Your task to perform on an android device: install app "Microsoft Authenticator" Image 0: 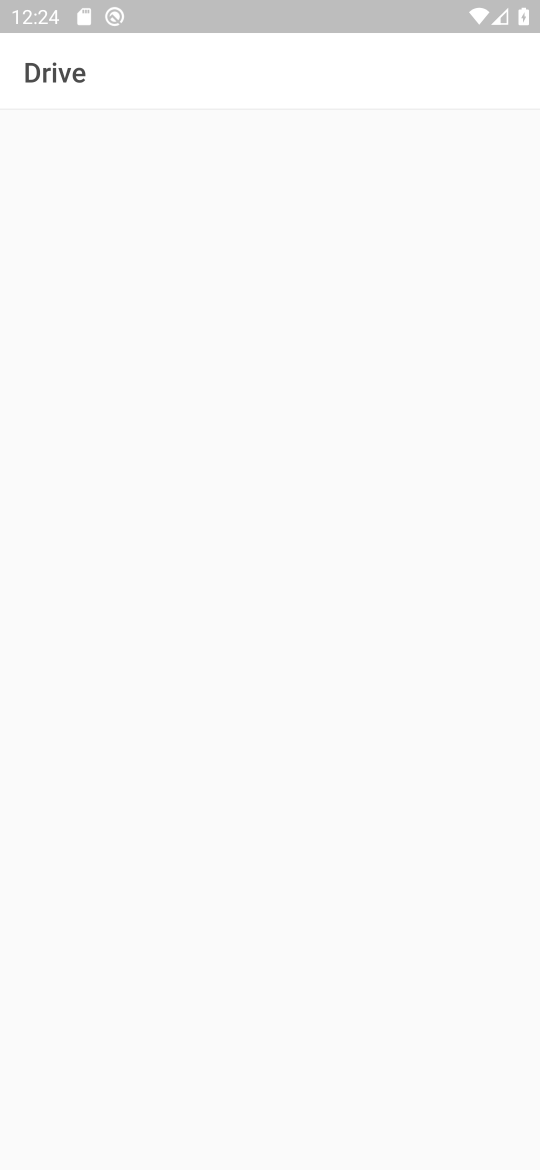
Step 0: press home button
Your task to perform on an android device: install app "Microsoft Authenticator" Image 1: 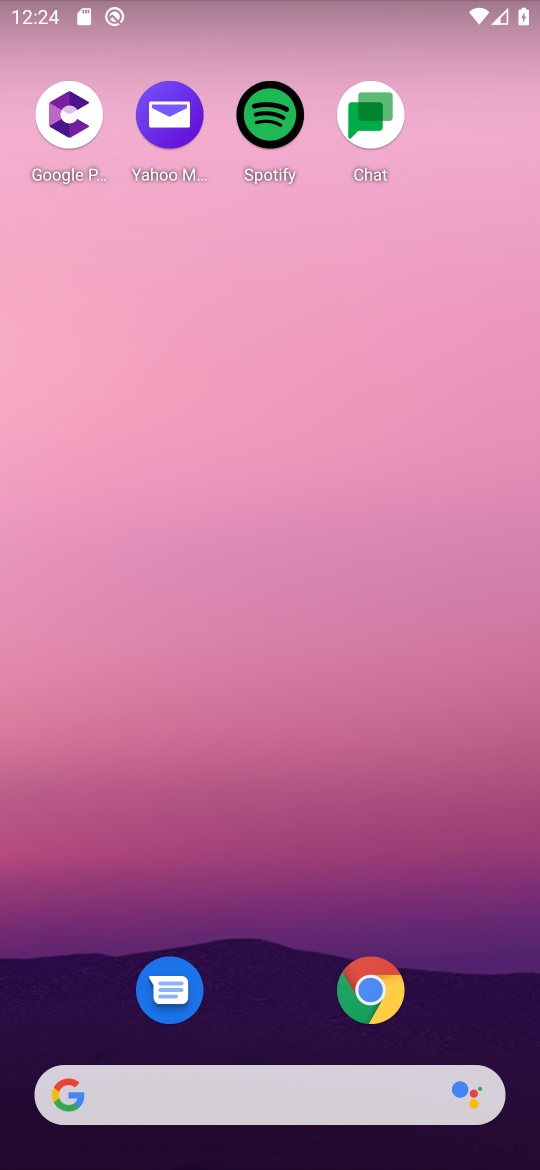
Step 1: drag from (242, 910) to (239, 291)
Your task to perform on an android device: install app "Microsoft Authenticator" Image 2: 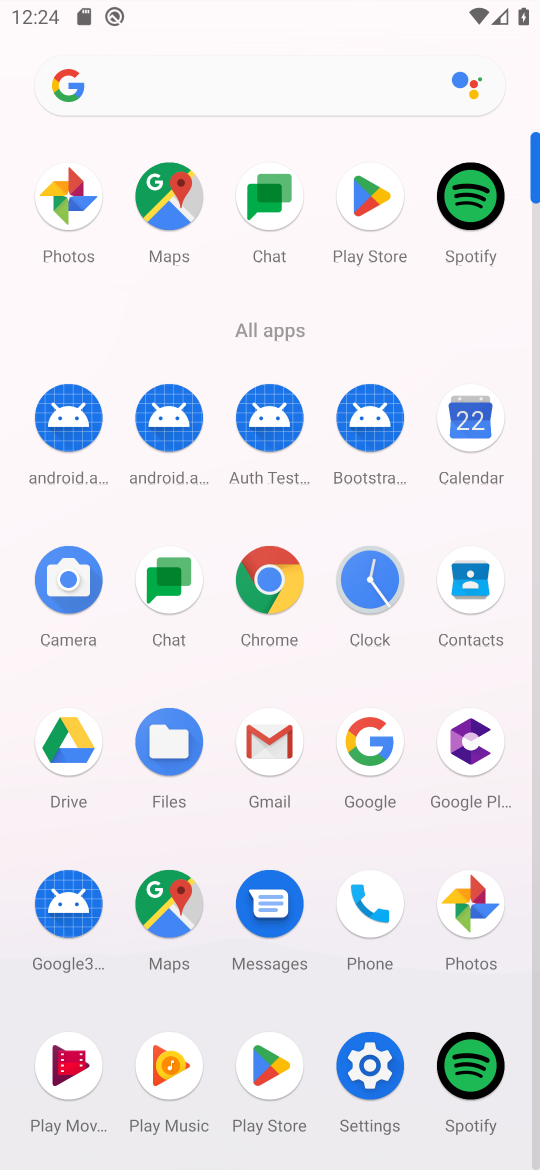
Step 2: click (386, 211)
Your task to perform on an android device: install app "Microsoft Authenticator" Image 3: 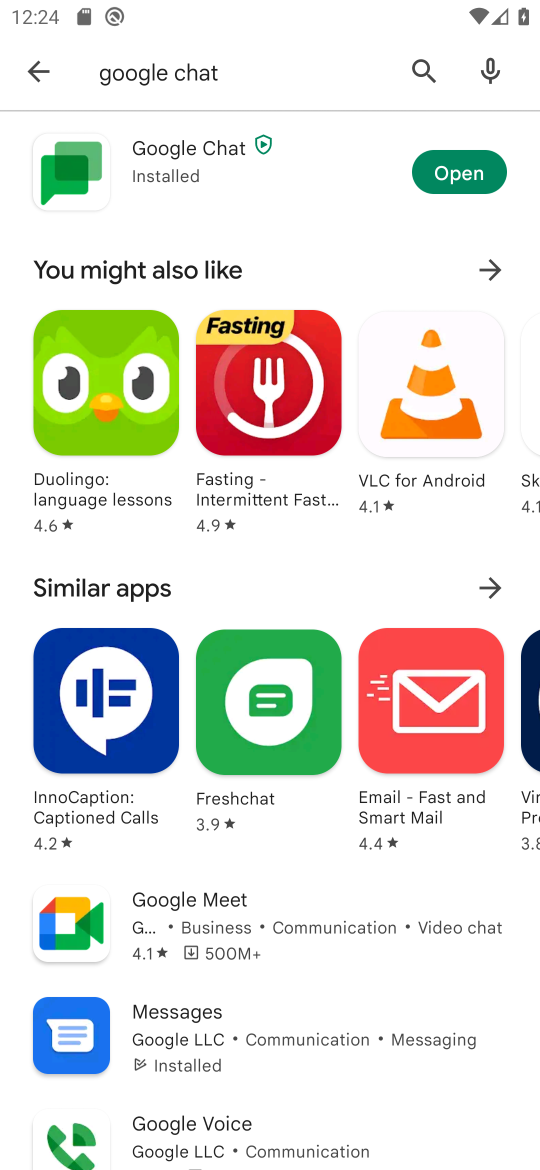
Step 3: click (424, 76)
Your task to perform on an android device: install app "Microsoft Authenticator" Image 4: 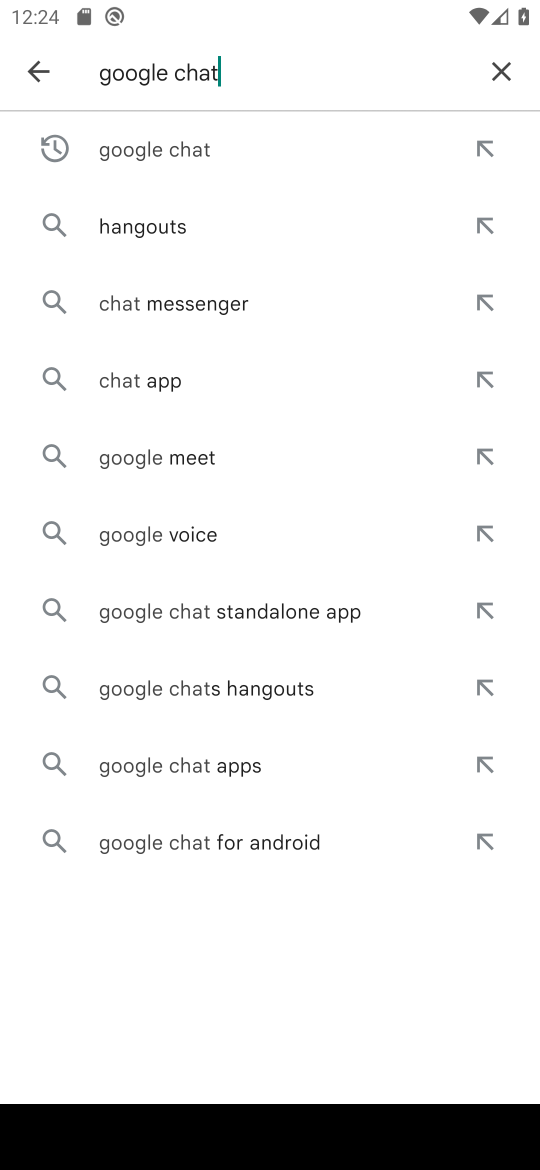
Step 4: click (500, 73)
Your task to perform on an android device: install app "Microsoft Authenticator" Image 5: 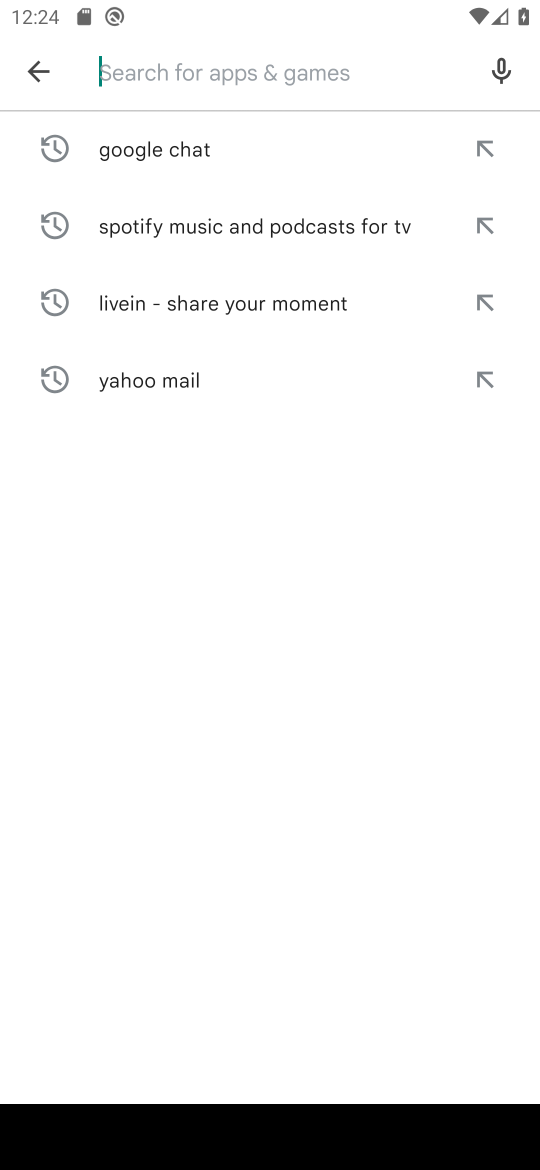
Step 5: type "Microsoft Authenticator"
Your task to perform on an android device: install app "Microsoft Authenticator" Image 6: 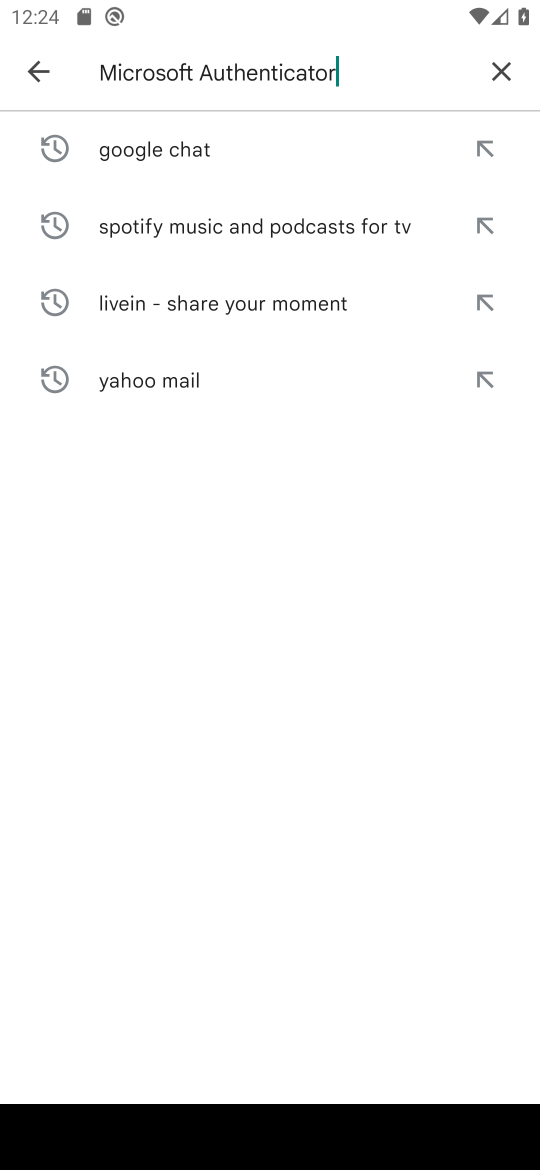
Step 6: type ""
Your task to perform on an android device: install app "Microsoft Authenticator" Image 7: 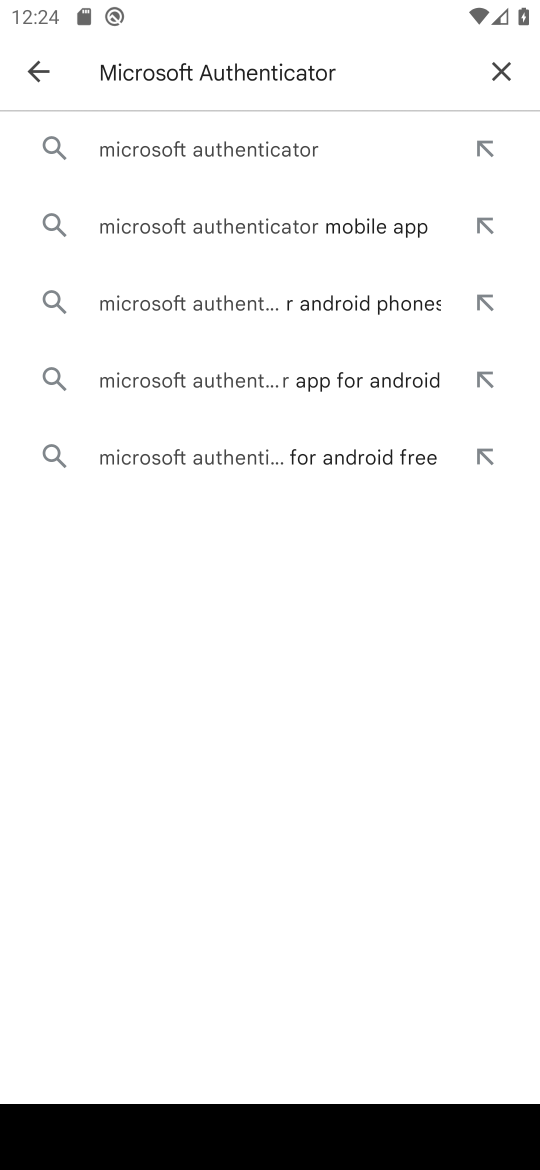
Step 7: click (224, 169)
Your task to perform on an android device: install app "Microsoft Authenticator" Image 8: 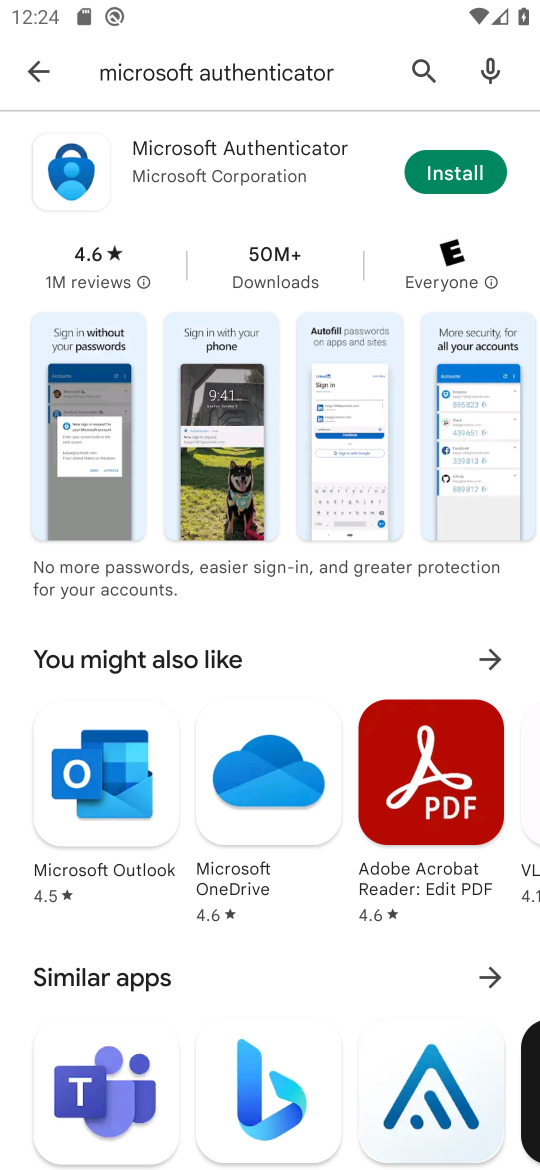
Step 8: click (447, 173)
Your task to perform on an android device: install app "Microsoft Authenticator" Image 9: 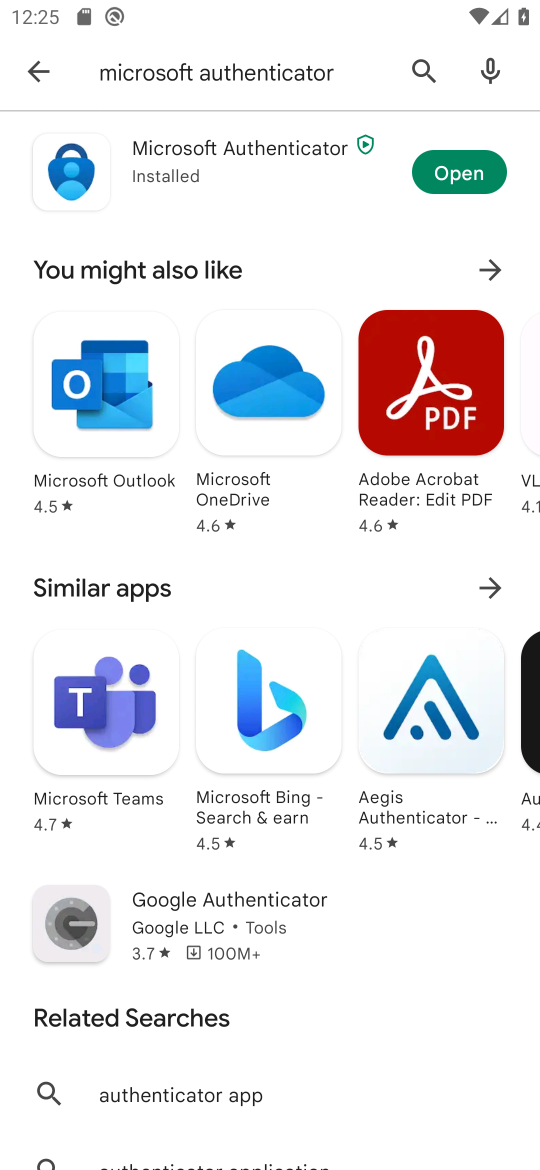
Step 9: task complete